Your task to perform on an android device: turn off javascript in the chrome app Image 0: 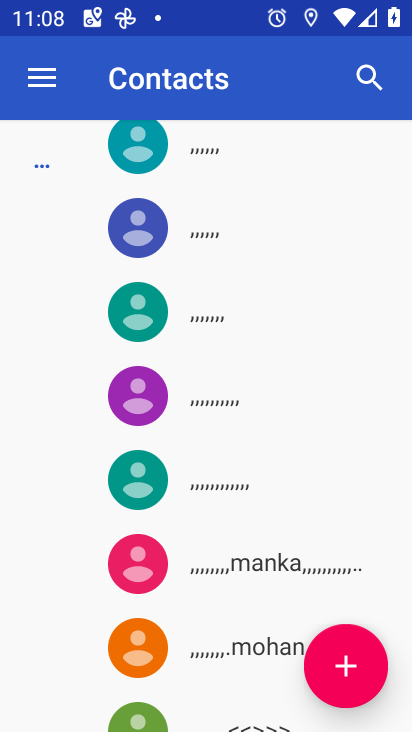
Step 0: press home button
Your task to perform on an android device: turn off javascript in the chrome app Image 1: 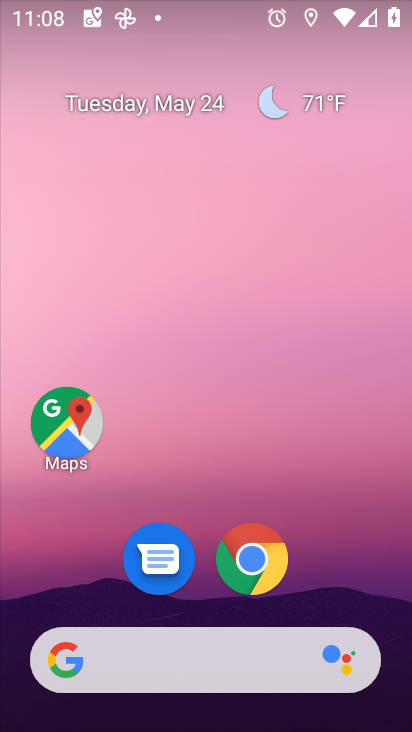
Step 1: drag from (390, 665) to (348, 74)
Your task to perform on an android device: turn off javascript in the chrome app Image 2: 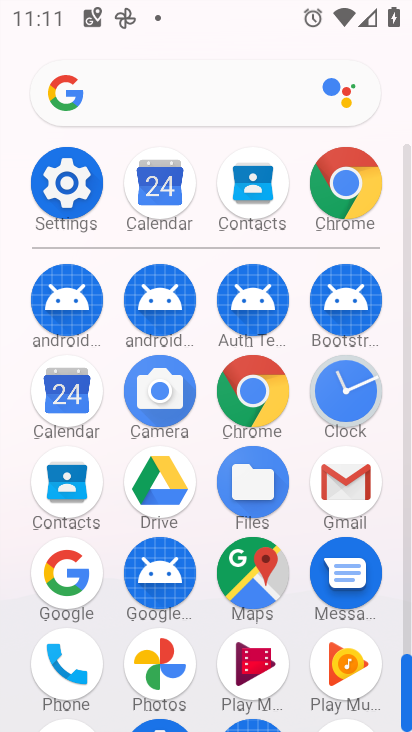
Step 2: click (351, 187)
Your task to perform on an android device: turn off javascript in the chrome app Image 3: 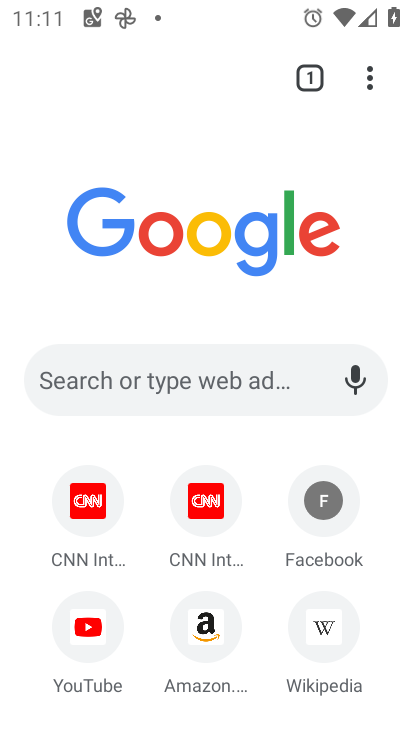
Step 3: click (360, 55)
Your task to perform on an android device: turn off javascript in the chrome app Image 4: 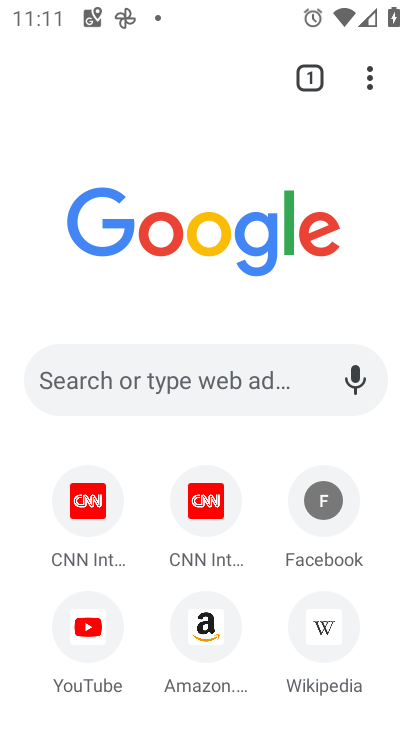
Step 4: click (371, 71)
Your task to perform on an android device: turn off javascript in the chrome app Image 5: 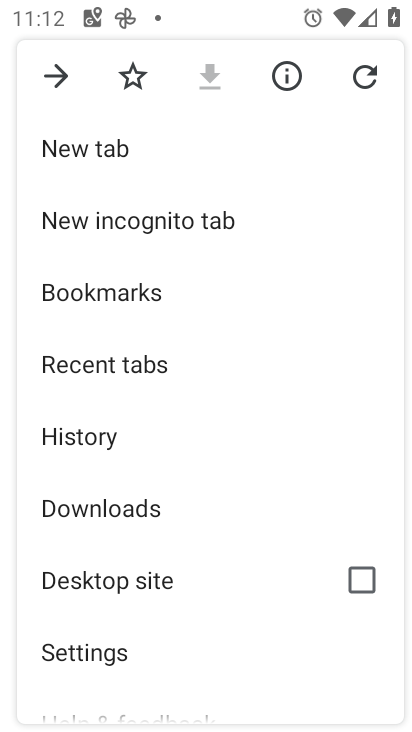
Step 5: click (174, 648)
Your task to perform on an android device: turn off javascript in the chrome app Image 6: 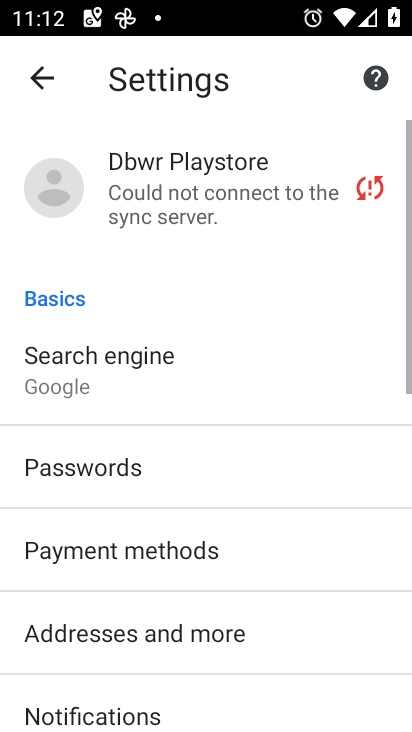
Step 6: drag from (169, 641) to (160, 283)
Your task to perform on an android device: turn off javascript in the chrome app Image 7: 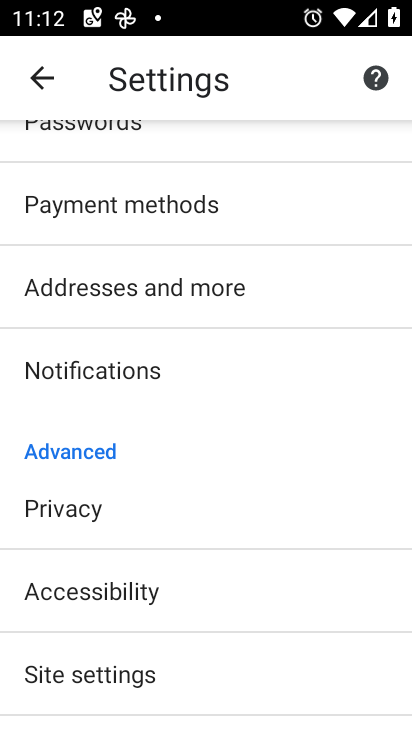
Step 7: click (117, 669)
Your task to perform on an android device: turn off javascript in the chrome app Image 8: 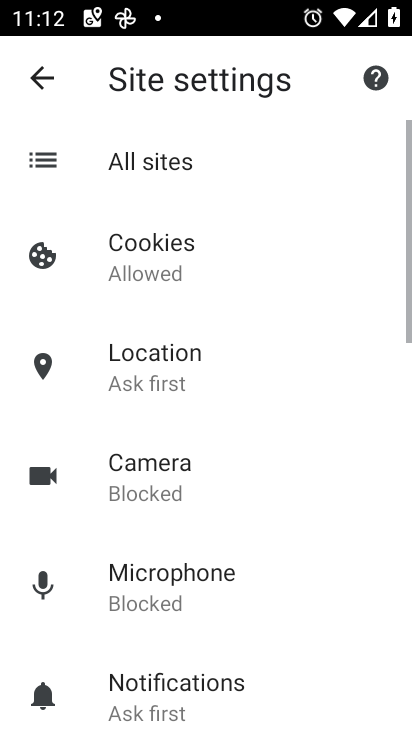
Step 8: drag from (118, 668) to (171, 210)
Your task to perform on an android device: turn off javascript in the chrome app Image 9: 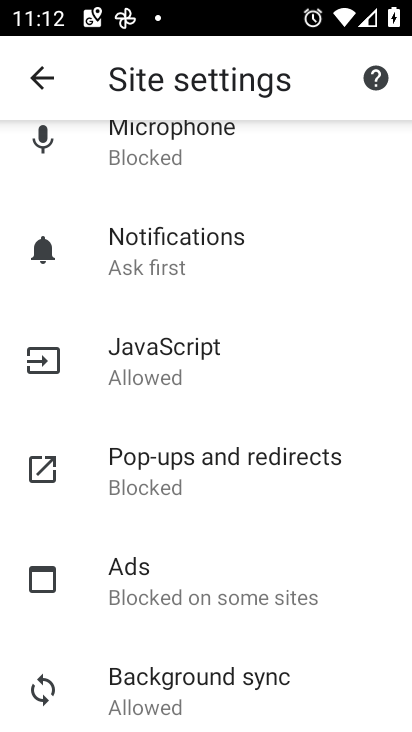
Step 9: click (209, 376)
Your task to perform on an android device: turn off javascript in the chrome app Image 10: 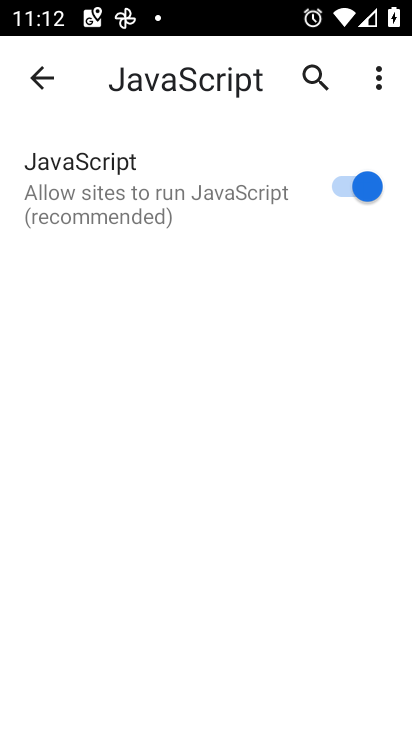
Step 10: click (354, 164)
Your task to perform on an android device: turn off javascript in the chrome app Image 11: 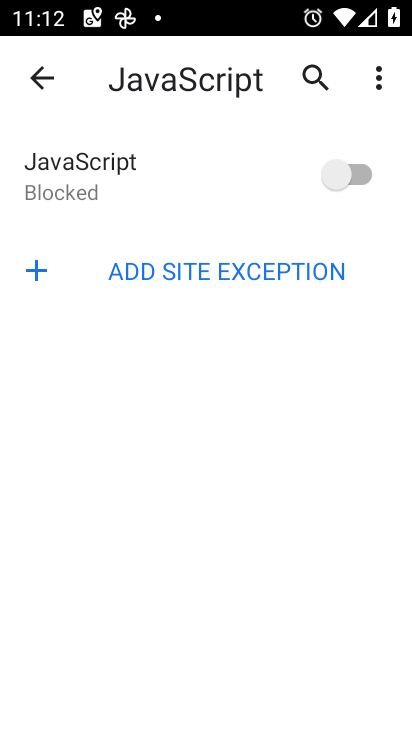
Step 11: task complete